Your task to perform on an android device: all mails in gmail Image 0: 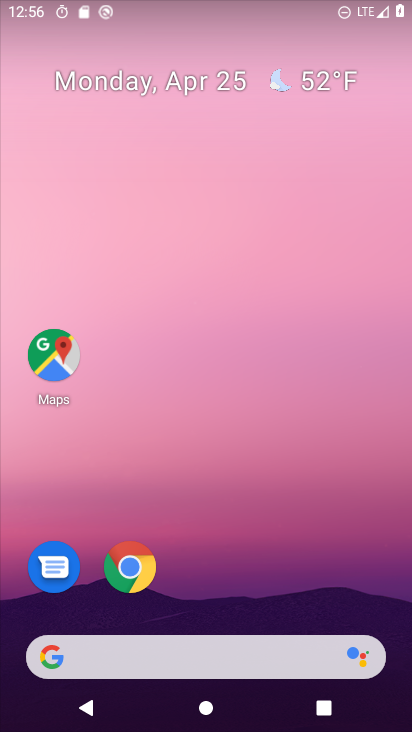
Step 0: drag from (253, 520) to (342, 4)
Your task to perform on an android device: all mails in gmail Image 1: 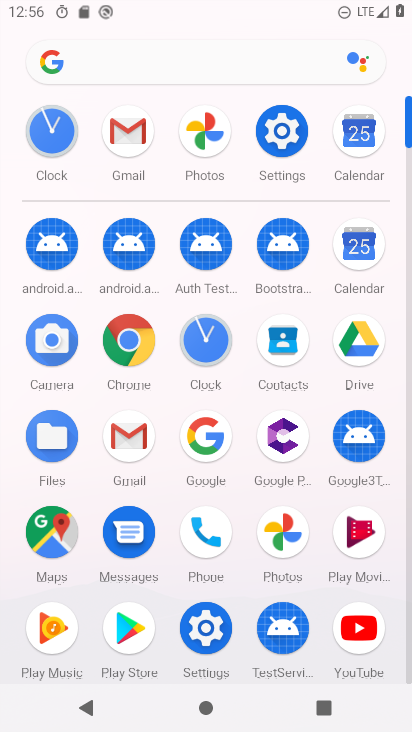
Step 1: click (134, 124)
Your task to perform on an android device: all mails in gmail Image 2: 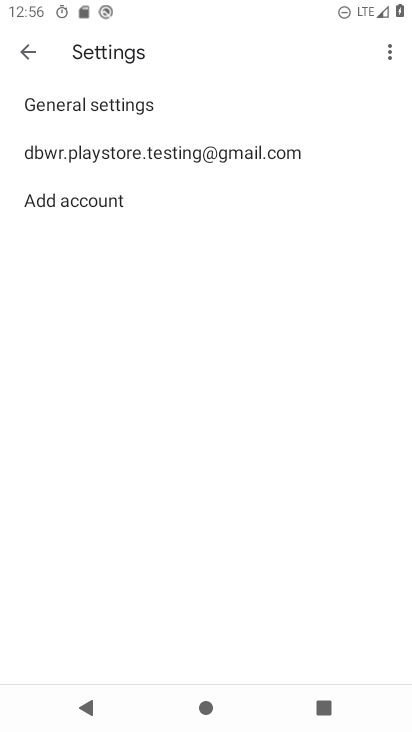
Step 2: click (30, 50)
Your task to perform on an android device: all mails in gmail Image 3: 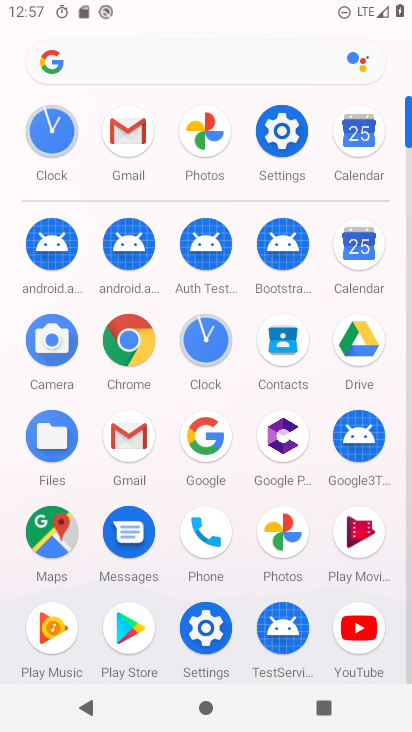
Step 3: click (125, 122)
Your task to perform on an android device: all mails in gmail Image 4: 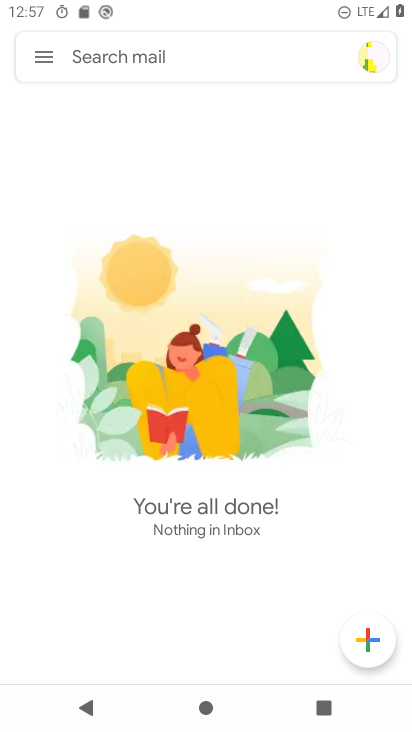
Step 4: click (41, 60)
Your task to perform on an android device: all mails in gmail Image 5: 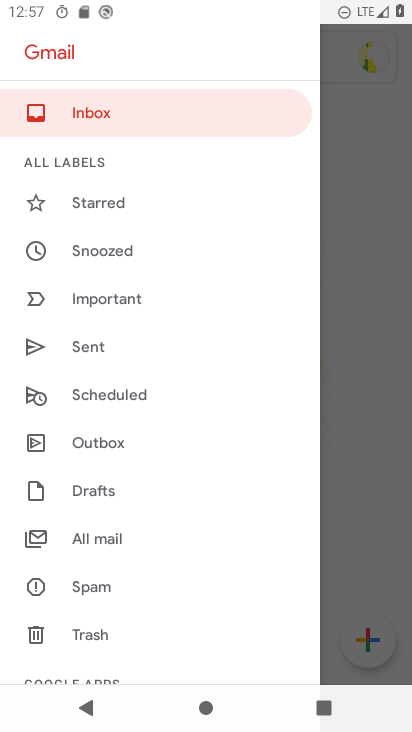
Step 5: click (141, 531)
Your task to perform on an android device: all mails in gmail Image 6: 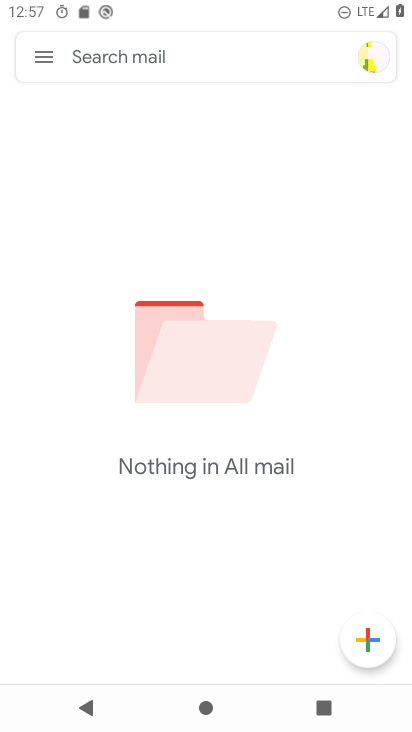
Step 6: task complete